Your task to perform on an android device: Open the Play Movies app and select the watchlist tab. Image 0: 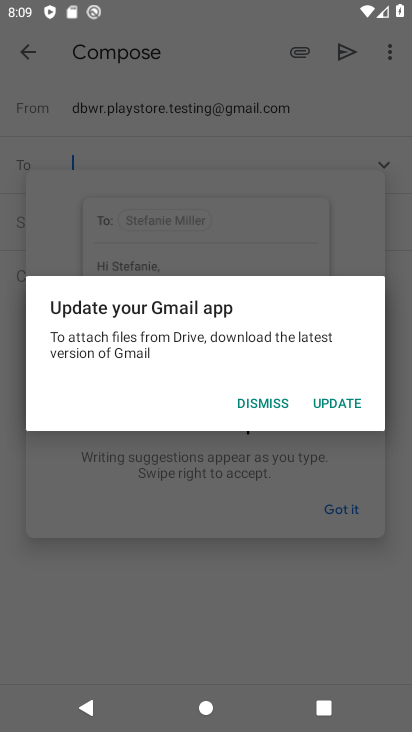
Step 0: press home button
Your task to perform on an android device: Open the Play Movies app and select the watchlist tab. Image 1: 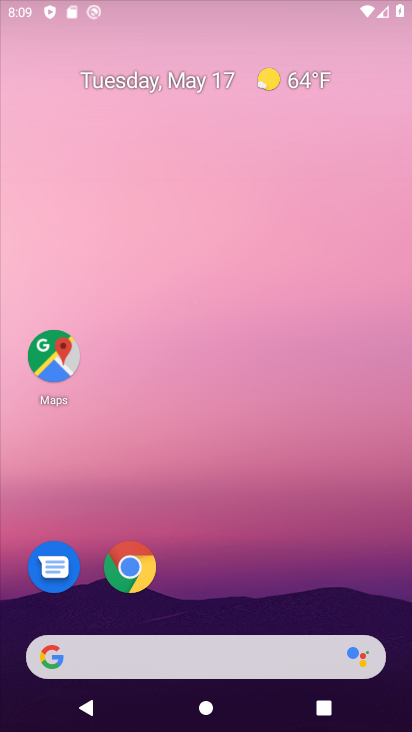
Step 1: drag from (342, 600) to (299, 37)
Your task to perform on an android device: Open the Play Movies app and select the watchlist tab. Image 2: 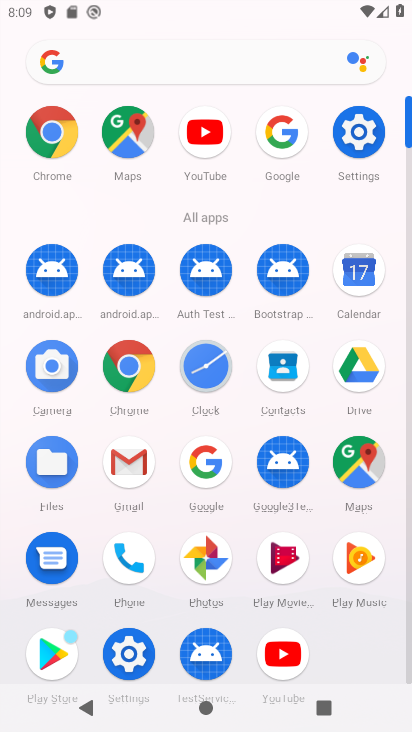
Step 2: click (282, 550)
Your task to perform on an android device: Open the Play Movies app and select the watchlist tab. Image 3: 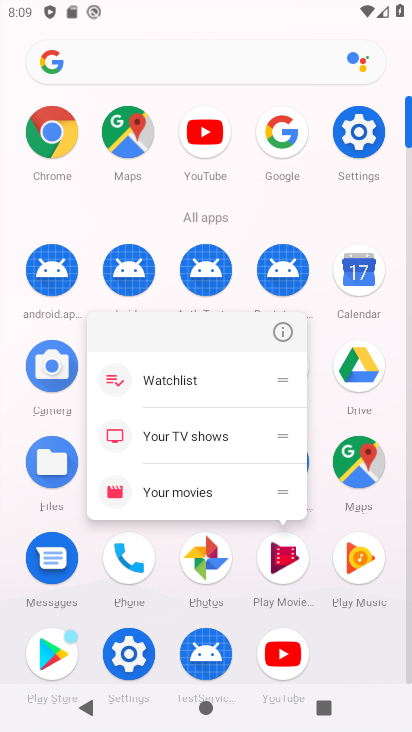
Step 3: click (282, 550)
Your task to perform on an android device: Open the Play Movies app and select the watchlist tab. Image 4: 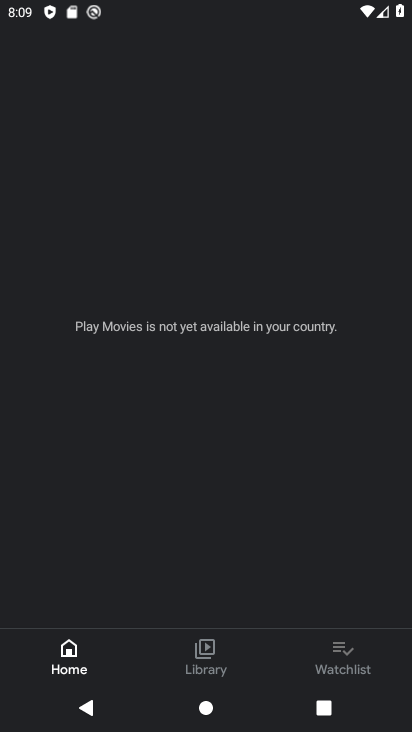
Step 4: click (339, 639)
Your task to perform on an android device: Open the Play Movies app and select the watchlist tab. Image 5: 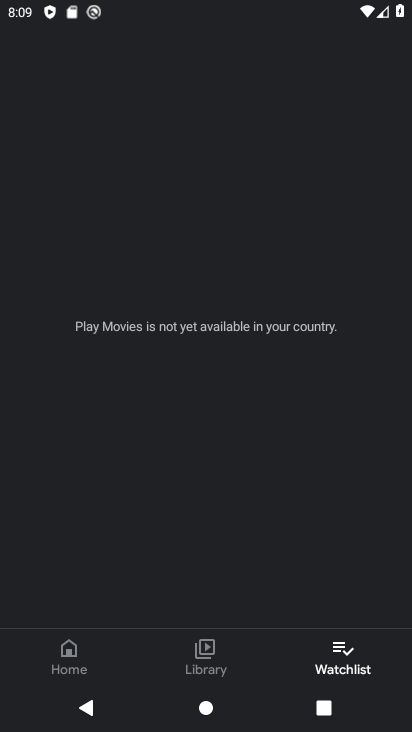
Step 5: task complete